Your task to perform on an android device: Show me popular videos on Youtube Image 0: 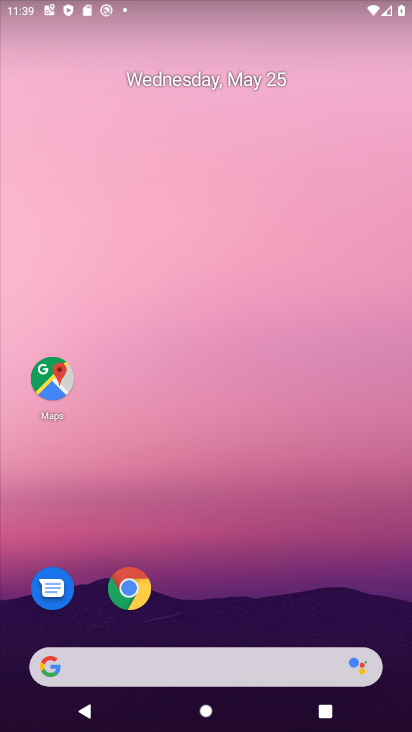
Step 0: drag from (241, 567) to (215, 36)
Your task to perform on an android device: Show me popular videos on Youtube Image 1: 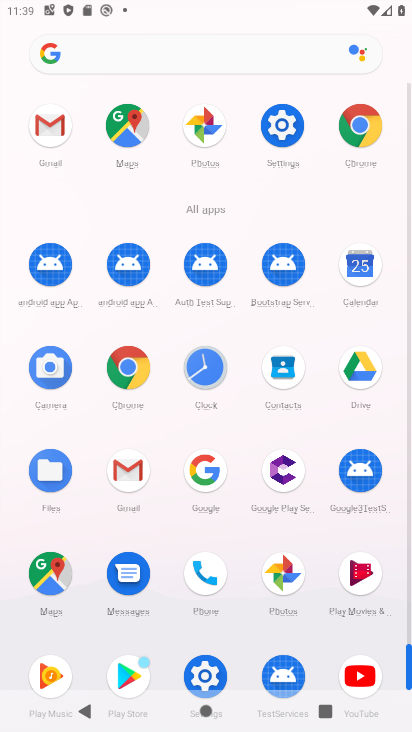
Step 1: drag from (7, 563) to (8, 247)
Your task to perform on an android device: Show me popular videos on Youtube Image 2: 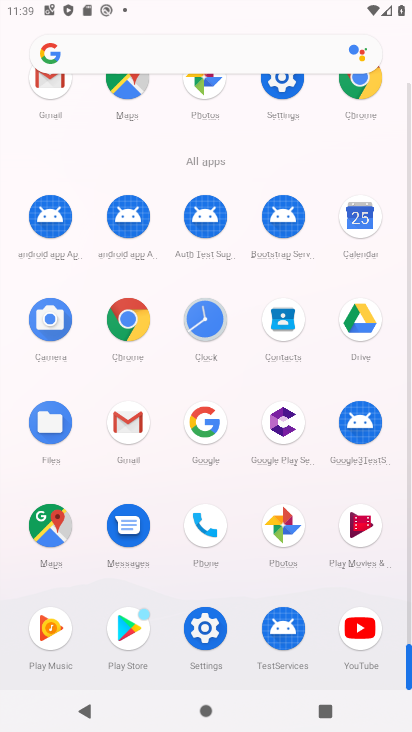
Step 2: drag from (22, 549) to (10, 245)
Your task to perform on an android device: Show me popular videos on Youtube Image 3: 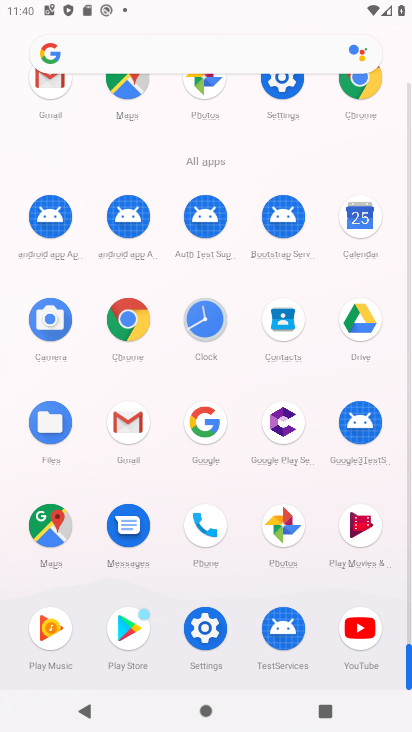
Step 3: click (359, 623)
Your task to perform on an android device: Show me popular videos on Youtube Image 4: 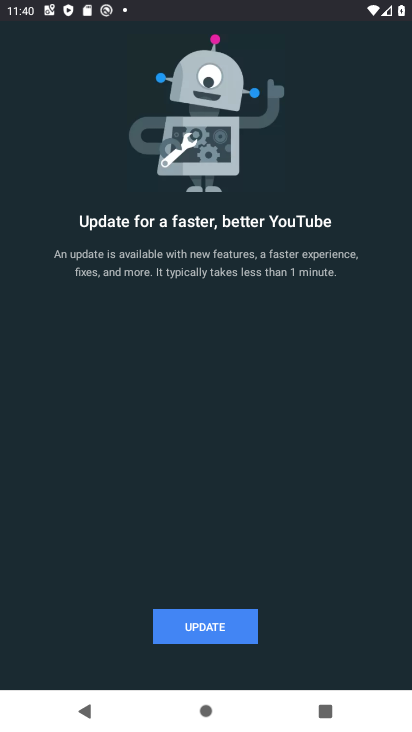
Step 4: click (186, 634)
Your task to perform on an android device: Show me popular videos on Youtube Image 5: 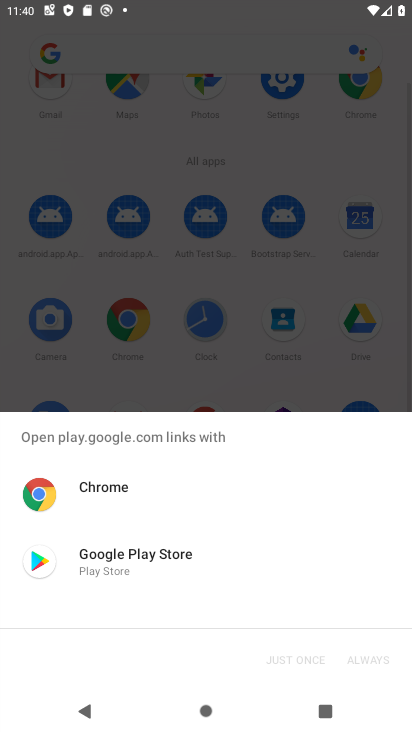
Step 5: click (129, 490)
Your task to perform on an android device: Show me popular videos on Youtube Image 6: 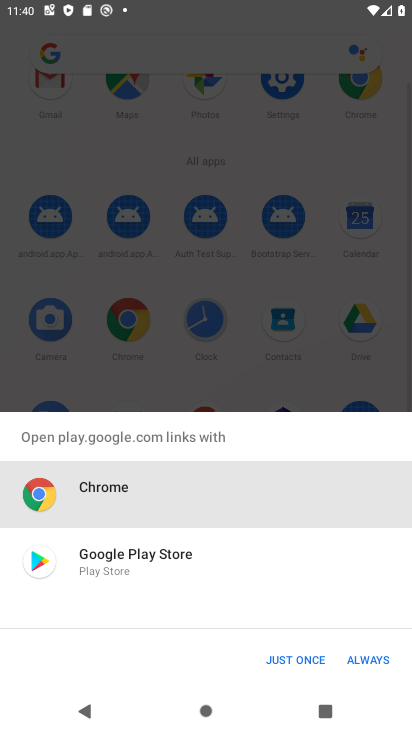
Step 6: click (118, 547)
Your task to perform on an android device: Show me popular videos on Youtube Image 7: 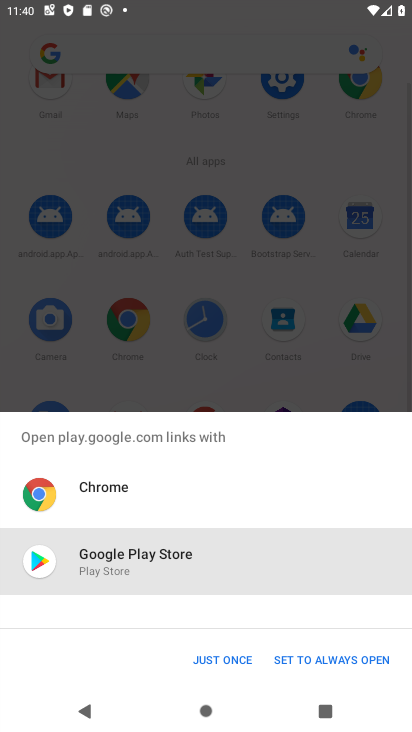
Step 7: click (198, 662)
Your task to perform on an android device: Show me popular videos on Youtube Image 8: 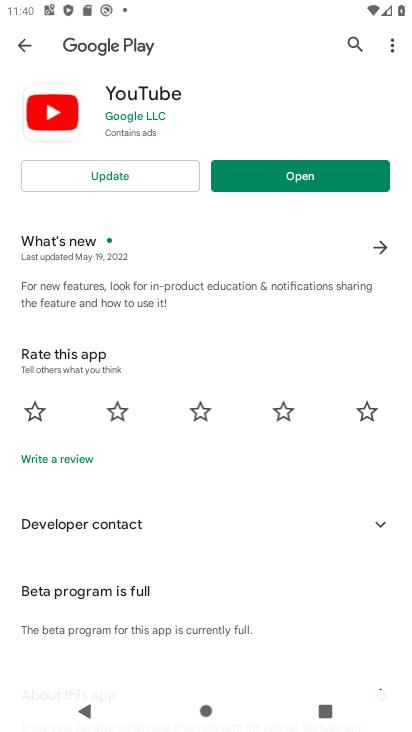
Step 8: click (153, 172)
Your task to perform on an android device: Show me popular videos on Youtube Image 9: 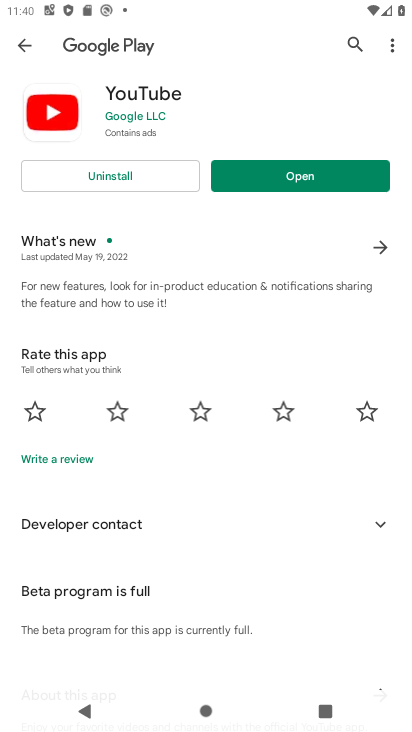
Step 9: click (248, 181)
Your task to perform on an android device: Show me popular videos on Youtube Image 10: 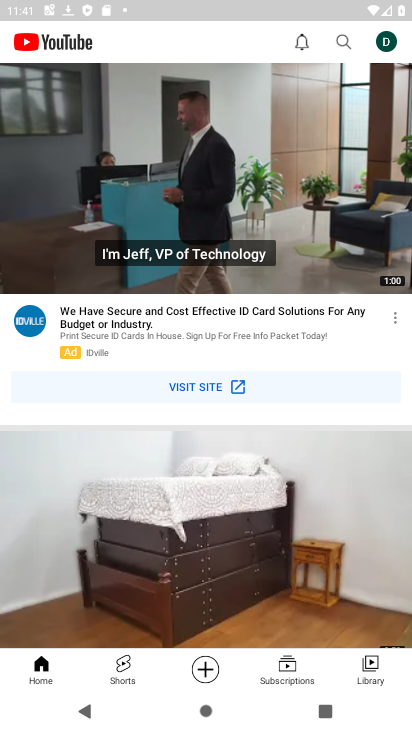
Step 10: drag from (103, 250) to (134, 477)
Your task to perform on an android device: Show me popular videos on Youtube Image 11: 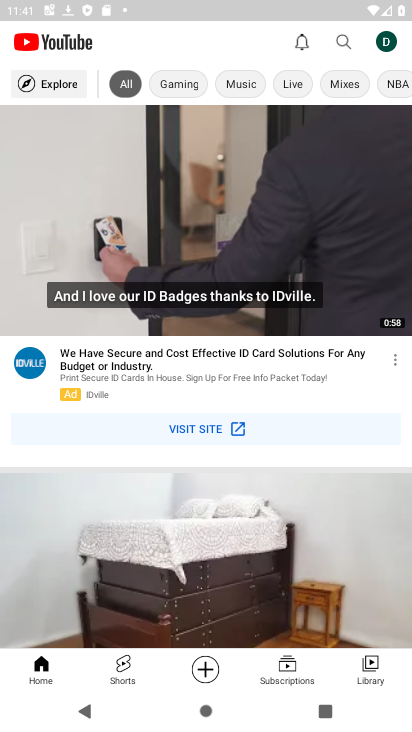
Step 11: click (65, 85)
Your task to perform on an android device: Show me popular videos on Youtube Image 12: 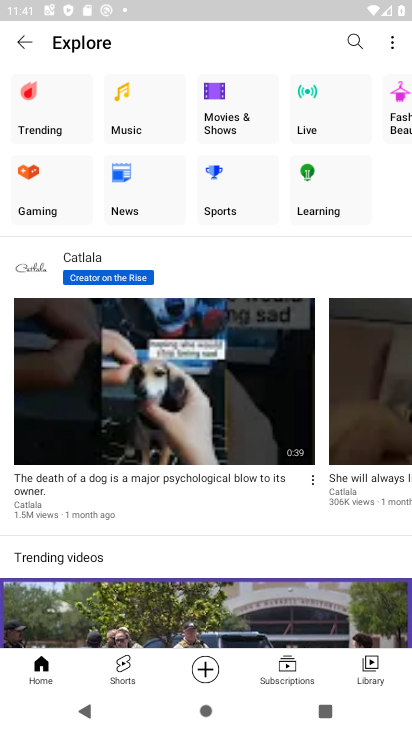
Step 12: drag from (208, 627) to (168, 649)
Your task to perform on an android device: Show me popular videos on Youtube Image 13: 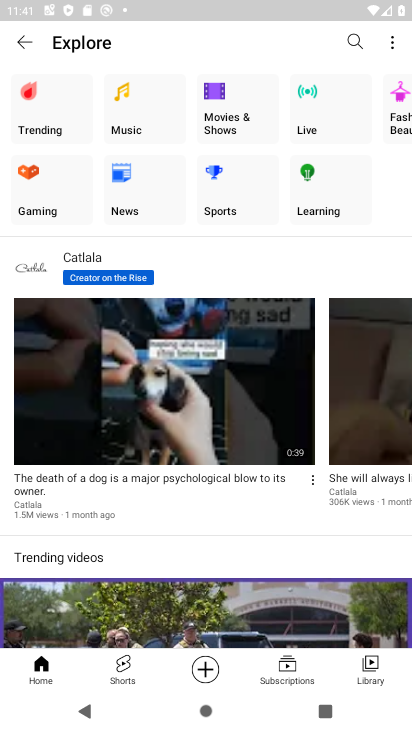
Step 13: click (44, 108)
Your task to perform on an android device: Show me popular videos on Youtube Image 14: 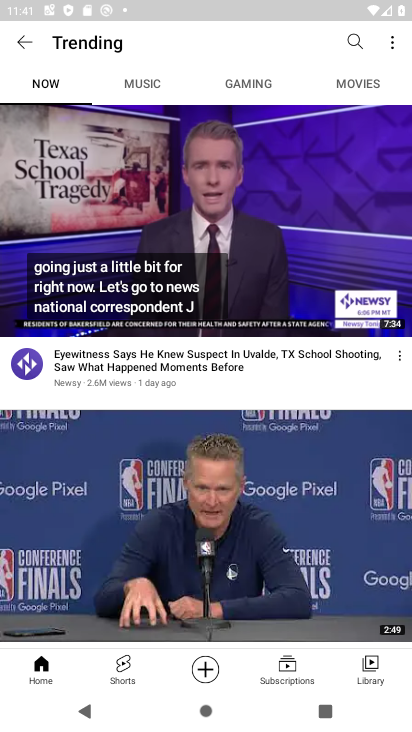
Step 14: task complete